Your task to perform on an android device: refresh tabs in the chrome app Image 0: 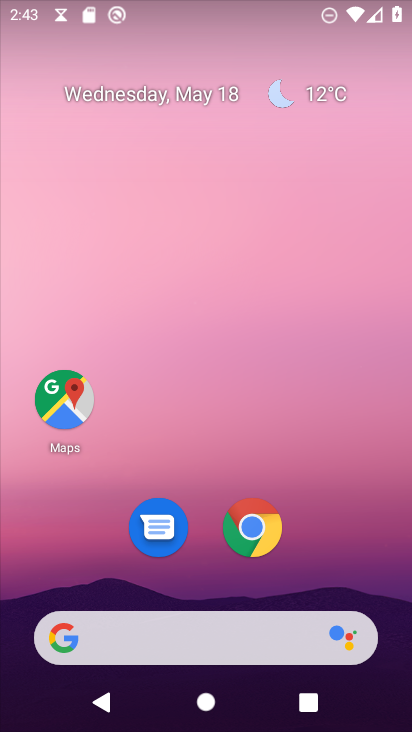
Step 0: click (263, 520)
Your task to perform on an android device: refresh tabs in the chrome app Image 1: 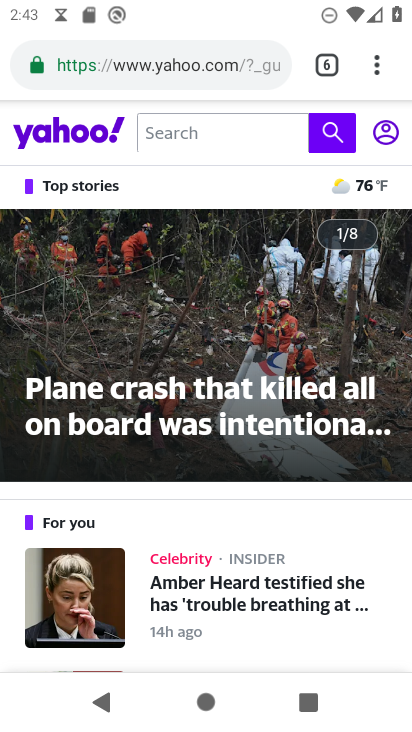
Step 1: click (374, 64)
Your task to perform on an android device: refresh tabs in the chrome app Image 2: 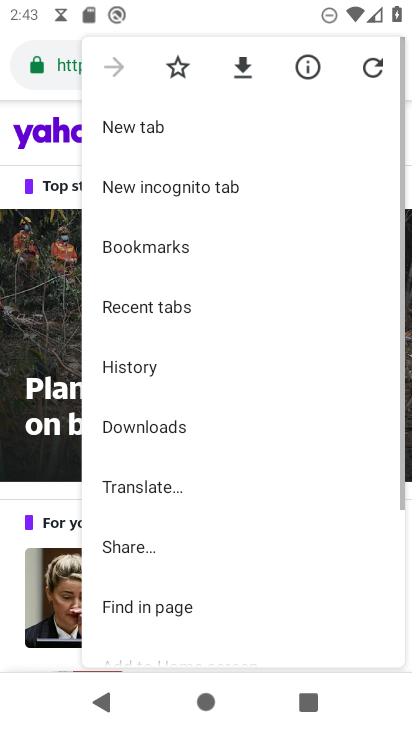
Step 2: click (375, 64)
Your task to perform on an android device: refresh tabs in the chrome app Image 3: 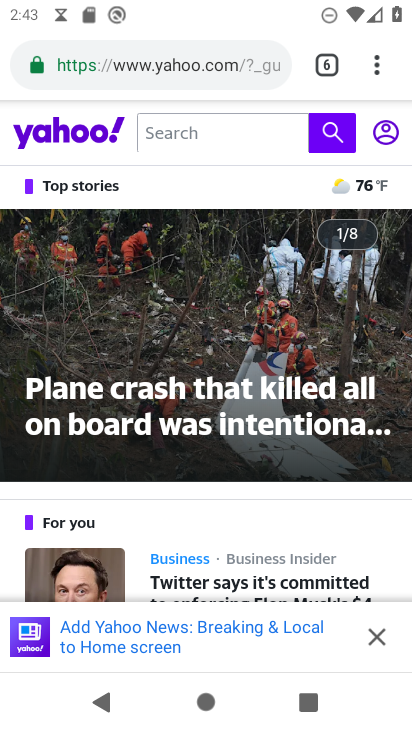
Step 3: task complete